Your task to perform on an android device: find snoozed emails in the gmail app Image 0: 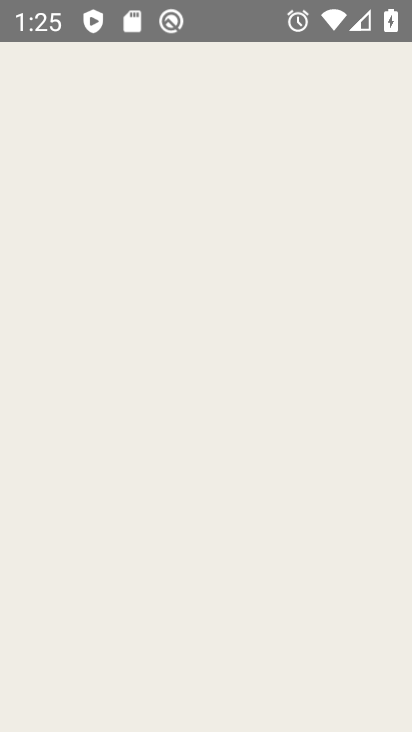
Step 0: press home button
Your task to perform on an android device: find snoozed emails in the gmail app Image 1: 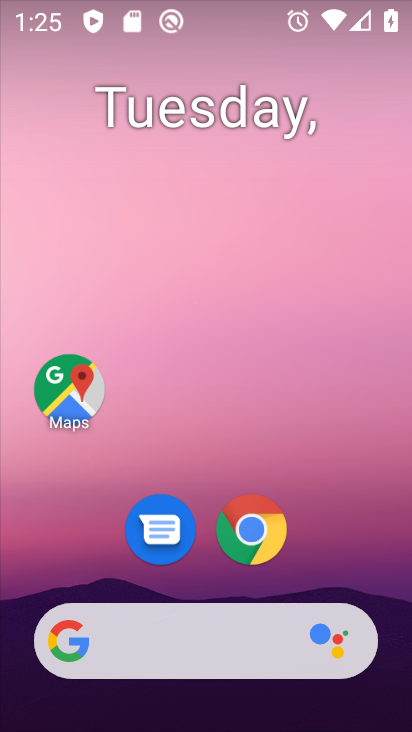
Step 1: drag from (386, 603) to (315, 42)
Your task to perform on an android device: find snoozed emails in the gmail app Image 2: 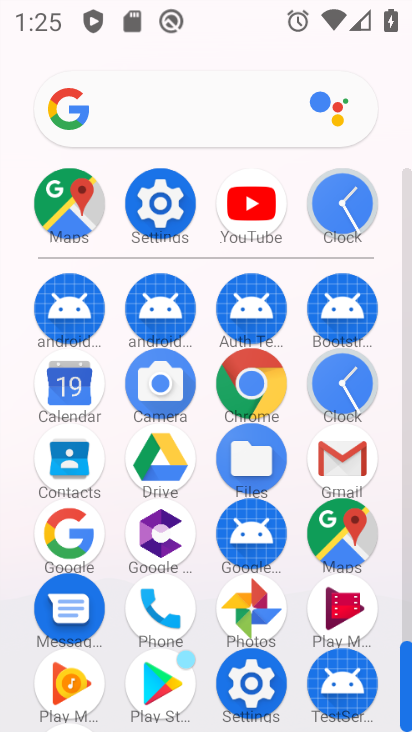
Step 2: click (345, 454)
Your task to perform on an android device: find snoozed emails in the gmail app Image 3: 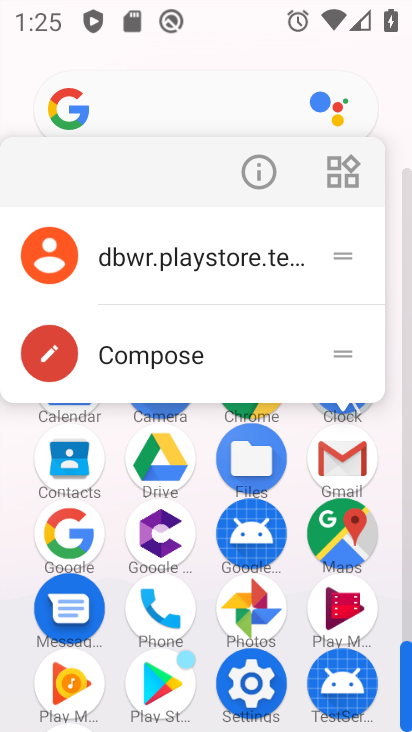
Step 3: click (345, 454)
Your task to perform on an android device: find snoozed emails in the gmail app Image 4: 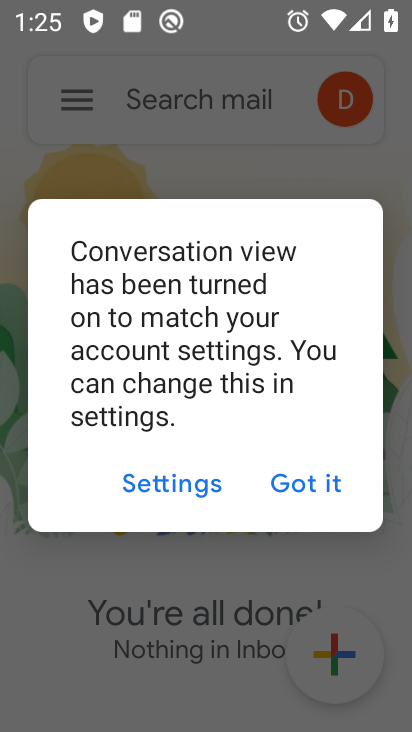
Step 4: task complete